Your task to perform on an android device: What's the weather today? Image 0: 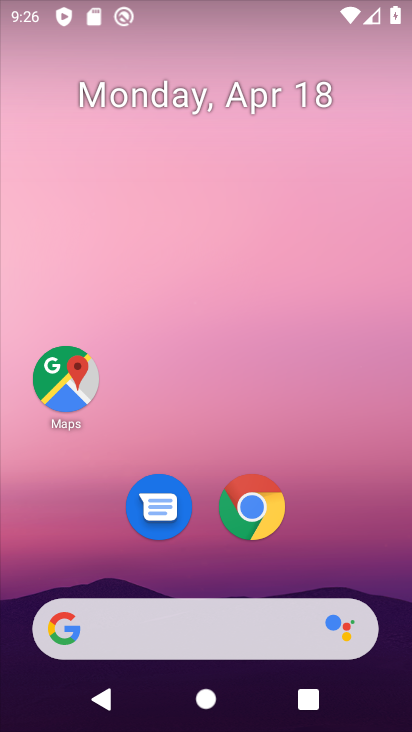
Step 0: click (209, 609)
Your task to perform on an android device: What's the weather today? Image 1: 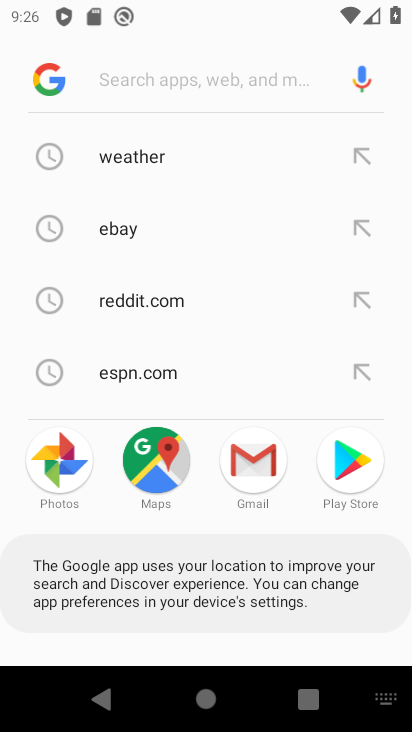
Step 1: click (115, 128)
Your task to perform on an android device: What's the weather today? Image 2: 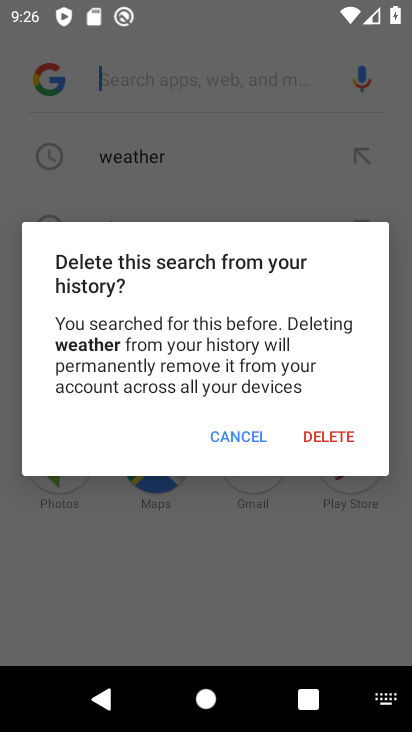
Step 2: click (212, 430)
Your task to perform on an android device: What's the weather today? Image 3: 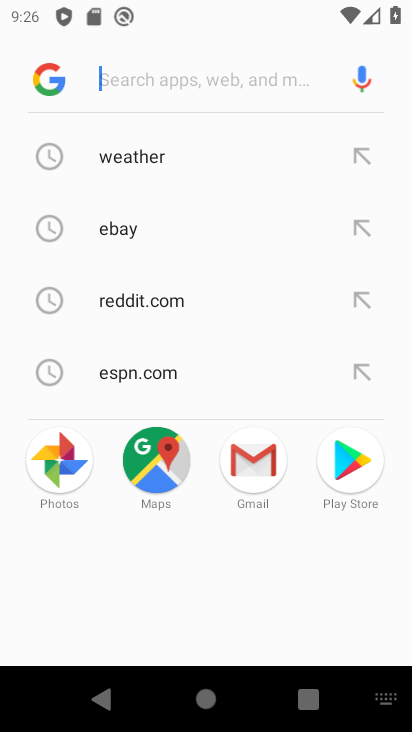
Step 3: click (35, 161)
Your task to perform on an android device: What's the weather today? Image 4: 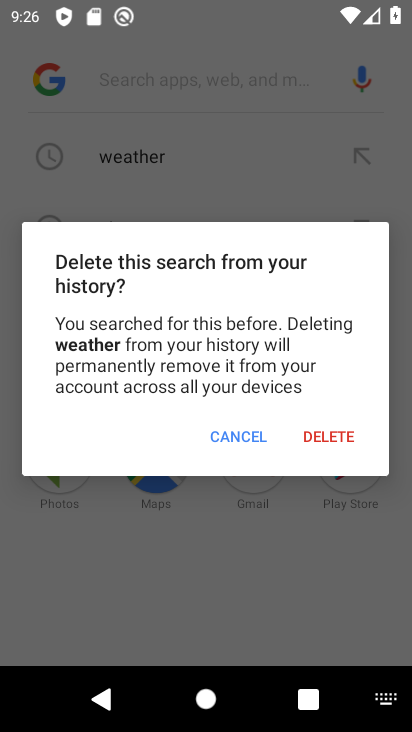
Step 4: click (214, 435)
Your task to perform on an android device: What's the weather today? Image 5: 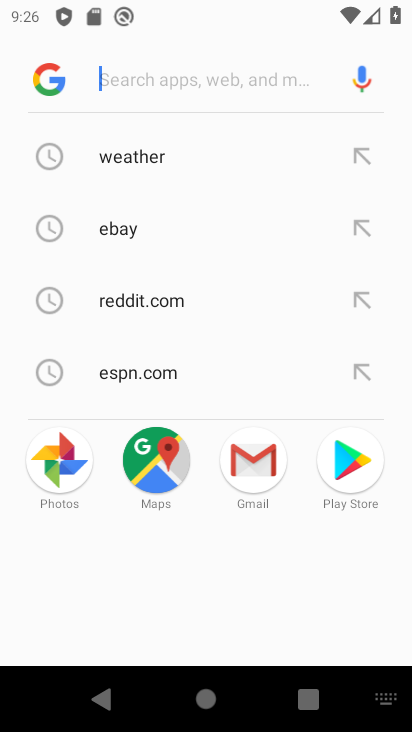
Step 5: click (140, 140)
Your task to perform on an android device: What's the weather today? Image 6: 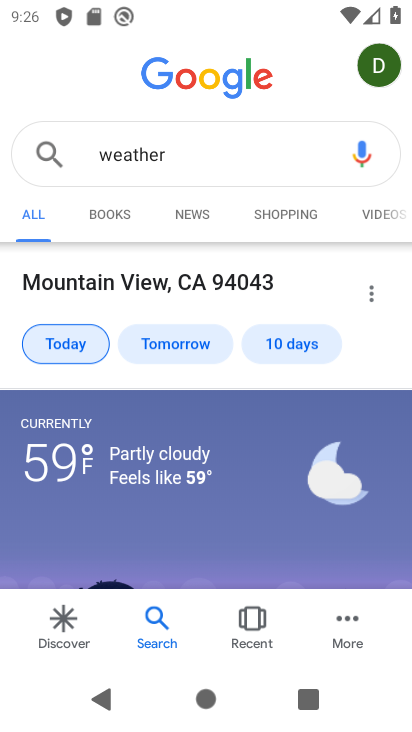
Step 6: task complete